Your task to perform on an android device: open sync settings in chrome Image 0: 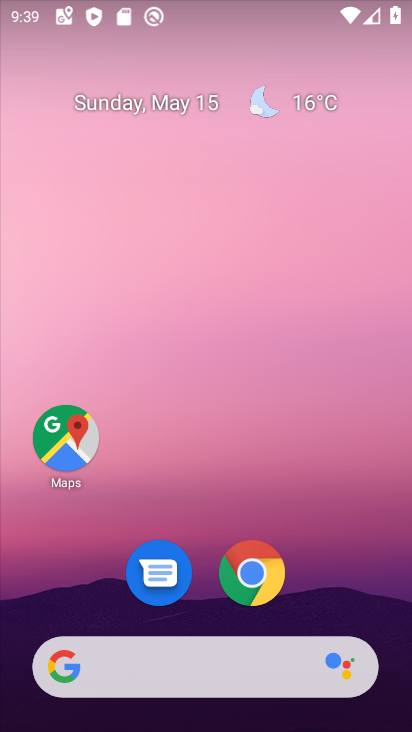
Step 0: click (266, 572)
Your task to perform on an android device: open sync settings in chrome Image 1: 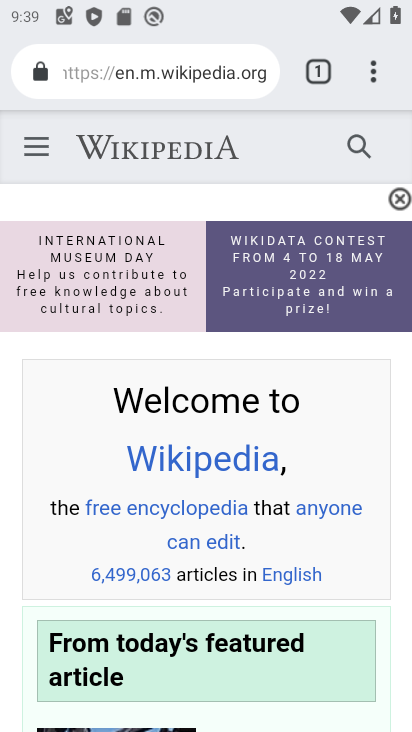
Step 1: drag from (370, 77) to (158, 584)
Your task to perform on an android device: open sync settings in chrome Image 2: 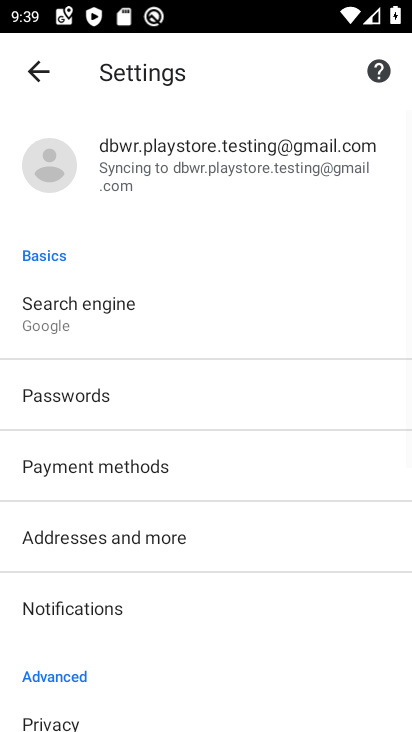
Step 2: drag from (199, 573) to (170, 53)
Your task to perform on an android device: open sync settings in chrome Image 3: 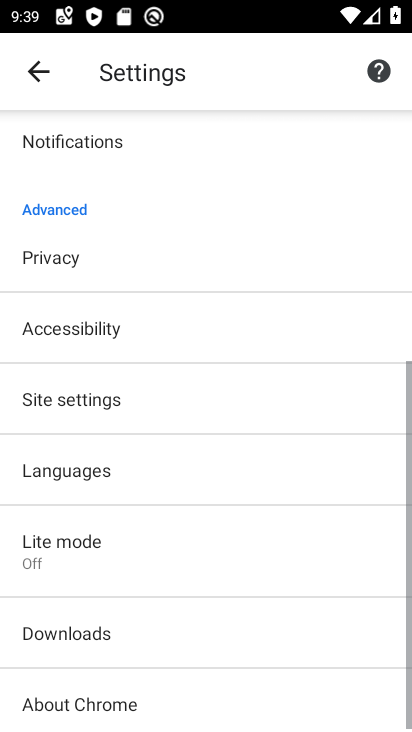
Step 3: click (163, 521)
Your task to perform on an android device: open sync settings in chrome Image 4: 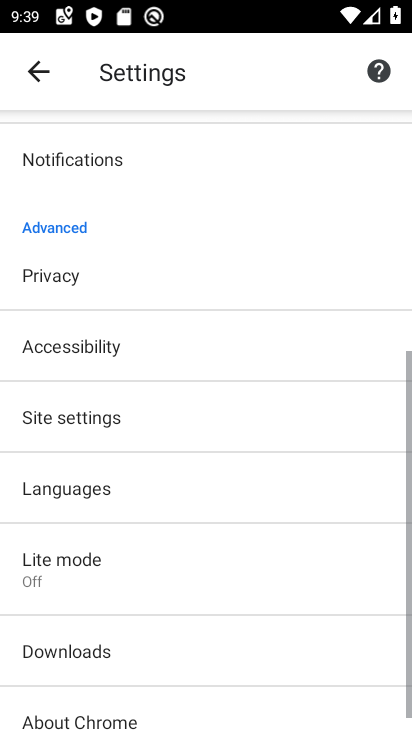
Step 4: click (166, 531)
Your task to perform on an android device: open sync settings in chrome Image 5: 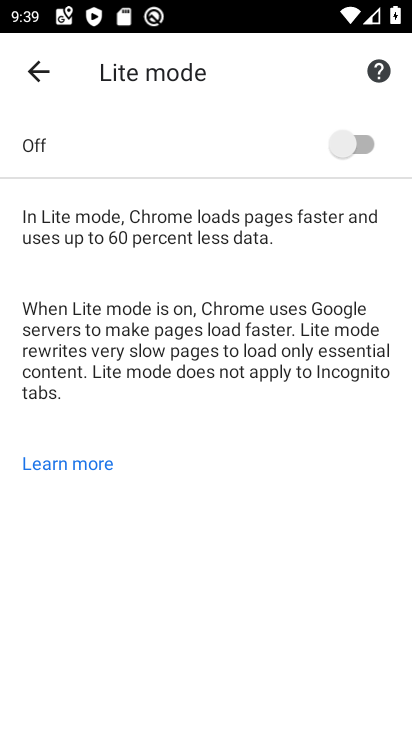
Step 5: drag from (192, 245) to (195, 402)
Your task to perform on an android device: open sync settings in chrome Image 6: 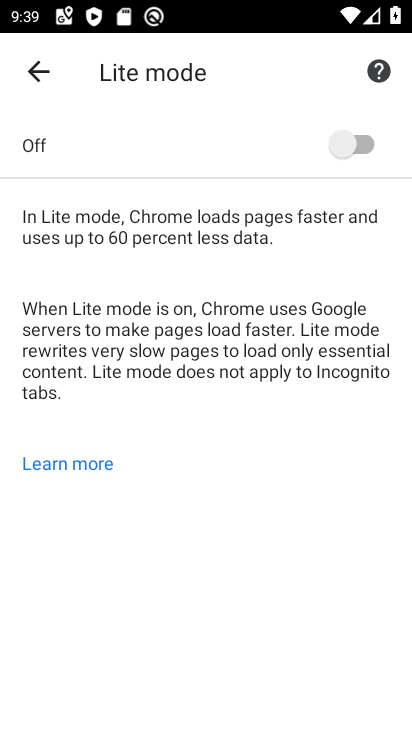
Step 6: click (37, 74)
Your task to perform on an android device: open sync settings in chrome Image 7: 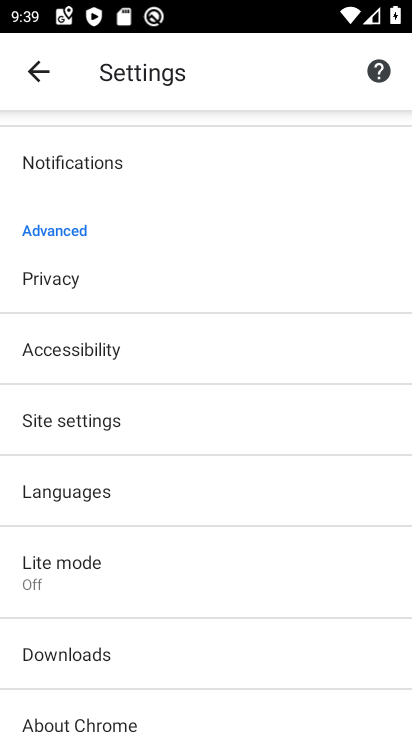
Step 7: drag from (47, 247) to (47, 643)
Your task to perform on an android device: open sync settings in chrome Image 8: 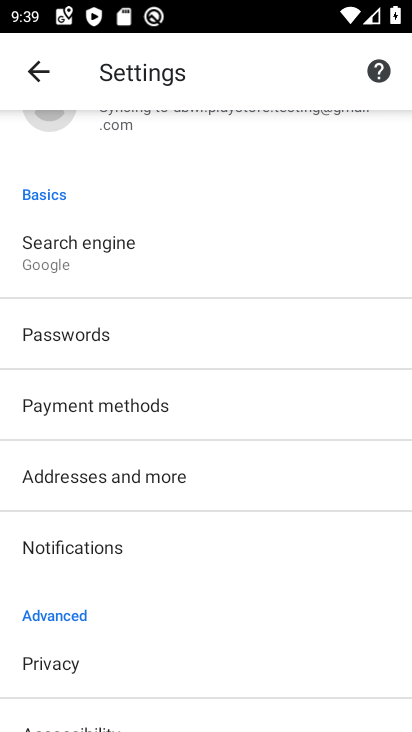
Step 8: drag from (177, 268) to (167, 574)
Your task to perform on an android device: open sync settings in chrome Image 9: 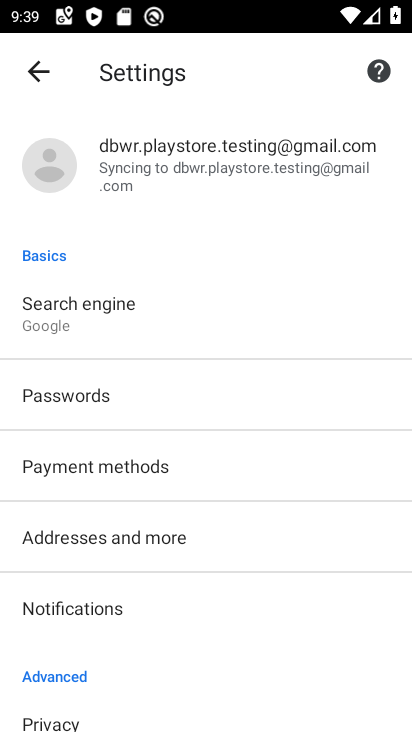
Step 9: click (141, 169)
Your task to perform on an android device: open sync settings in chrome Image 10: 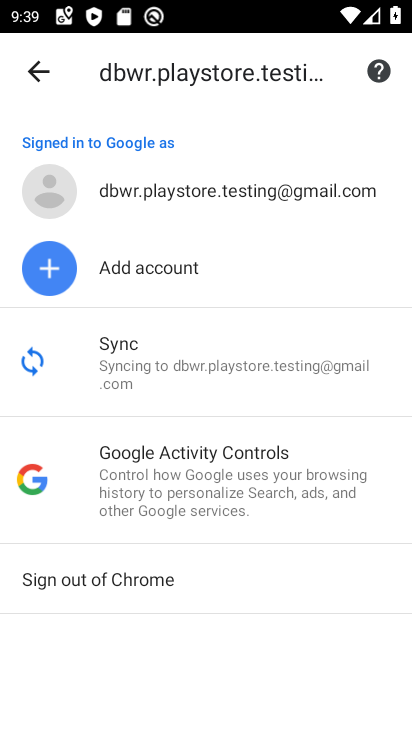
Step 10: task complete